Your task to perform on an android device: Go to CNN.com Image 0: 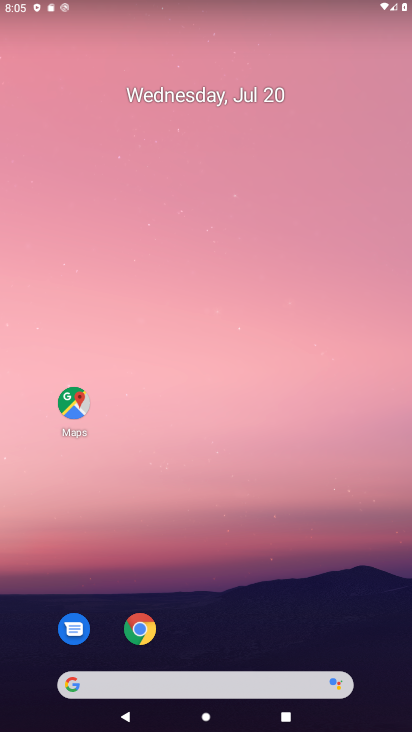
Step 0: click (142, 628)
Your task to perform on an android device: Go to CNN.com Image 1: 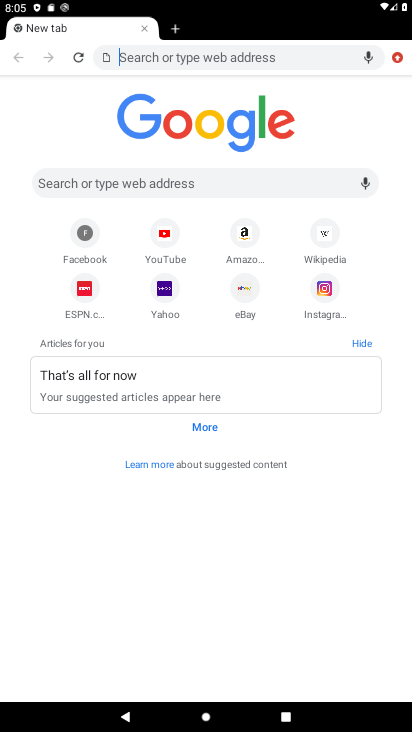
Step 1: click (175, 23)
Your task to perform on an android device: Go to CNN.com Image 2: 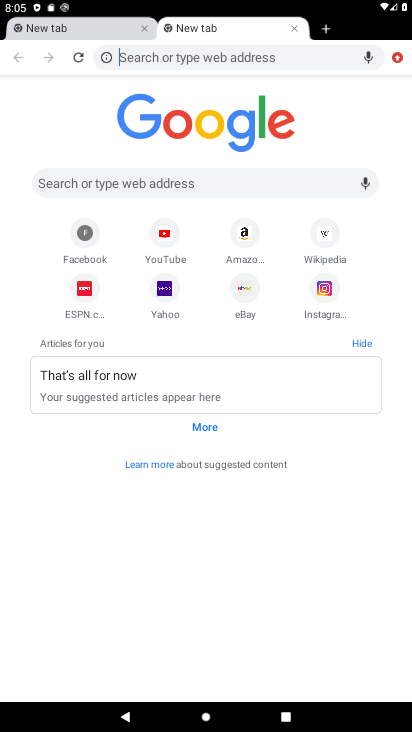
Step 2: type "CNN.com"
Your task to perform on an android device: Go to CNN.com Image 3: 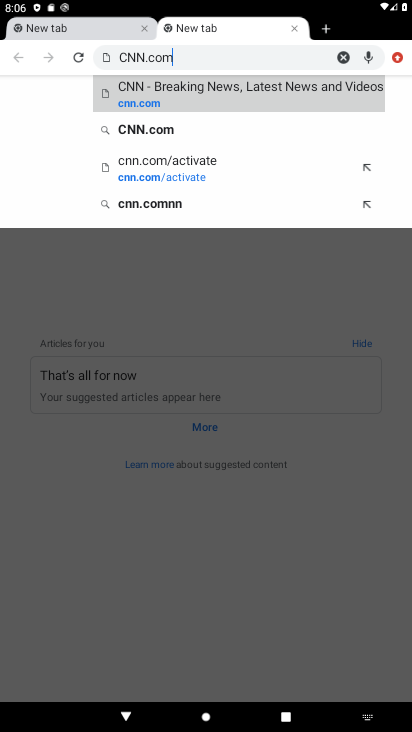
Step 3: click (266, 78)
Your task to perform on an android device: Go to CNN.com Image 4: 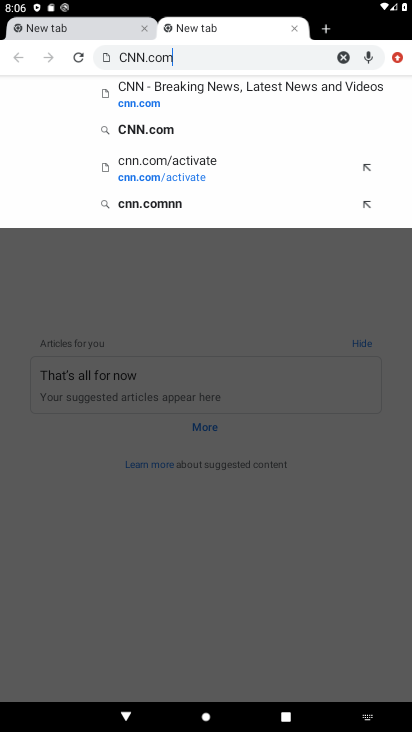
Step 4: click (162, 88)
Your task to perform on an android device: Go to CNN.com Image 5: 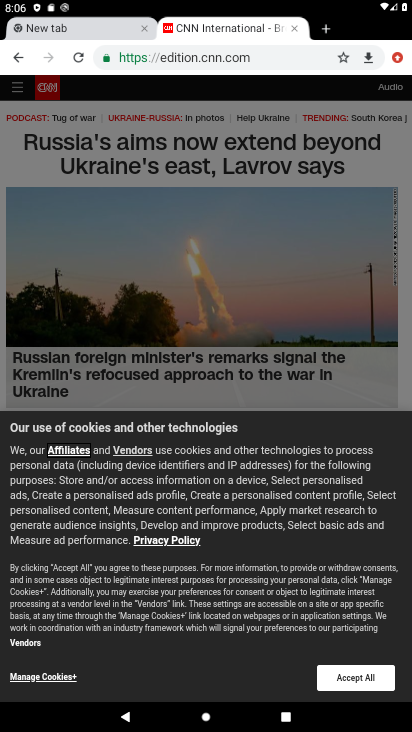
Step 5: task complete